Your task to perform on an android device: star an email in the gmail app Image 0: 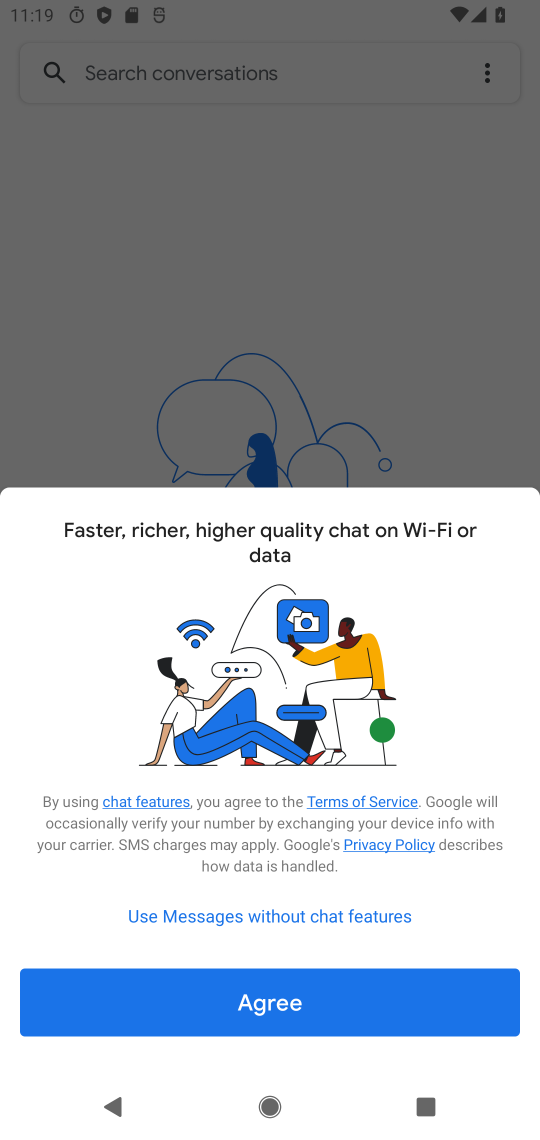
Step 0: press home button
Your task to perform on an android device: star an email in the gmail app Image 1: 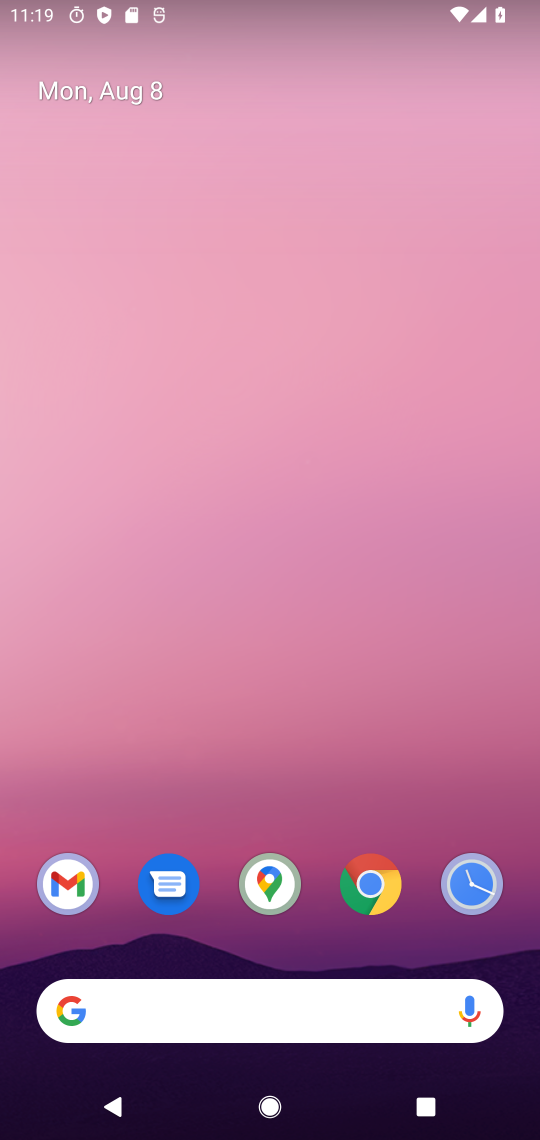
Step 1: click (66, 885)
Your task to perform on an android device: star an email in the gmail app Image 2: 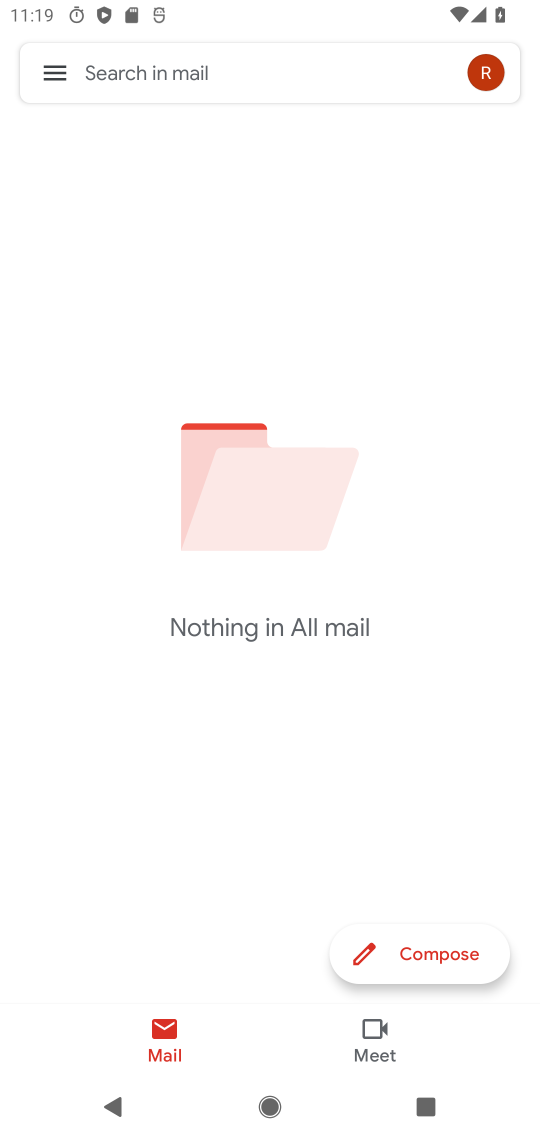
Step 2: task complete